Your task to perform on an android device: Open notification settings Image 0: 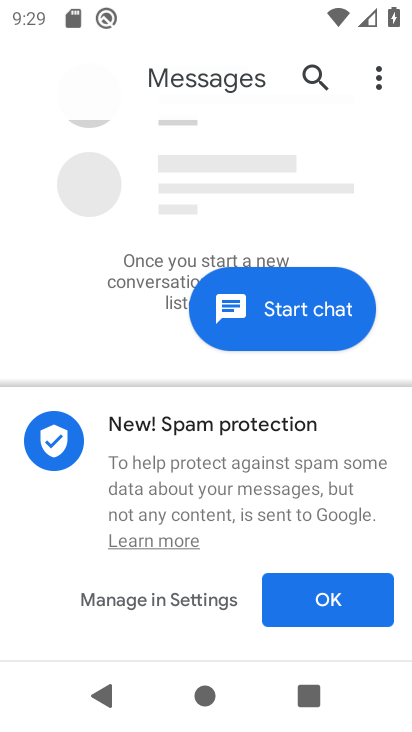
Step 0: press home button
Your task to perform on an android device: Open notification settings Image 1: 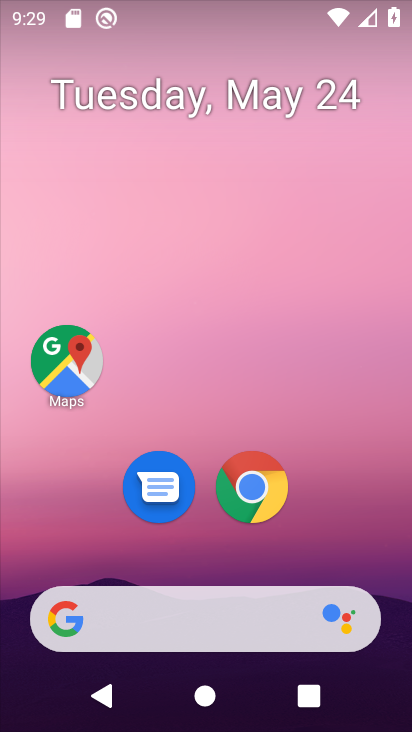
Step 1: drag from (169, 610) to (338, 68)
Your task to perform on an android device: Open notification settings Image 2: 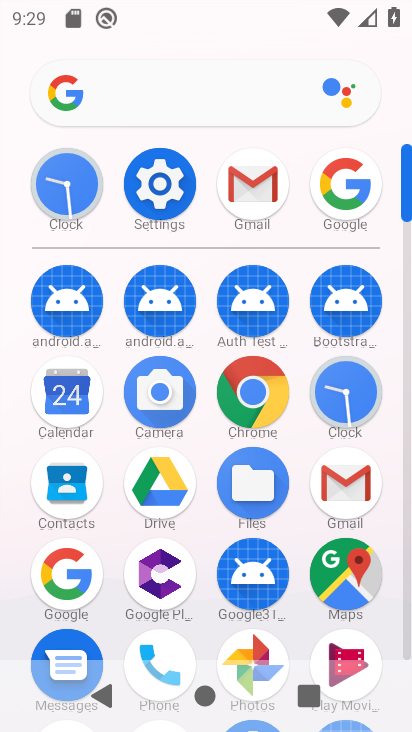
Step 2: click (159, 165)
Your task to perform on an android device: Open notification settings Image 3: 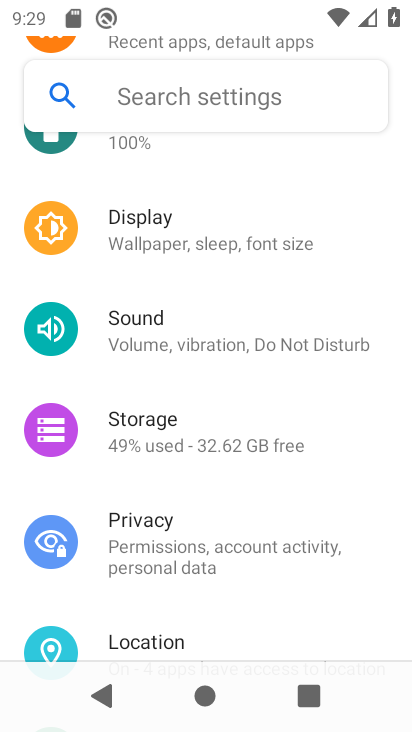
Step 3: drag from (339, 166) to (240, 635)
Your task to perform on an android device: Open notification settings Image 4: 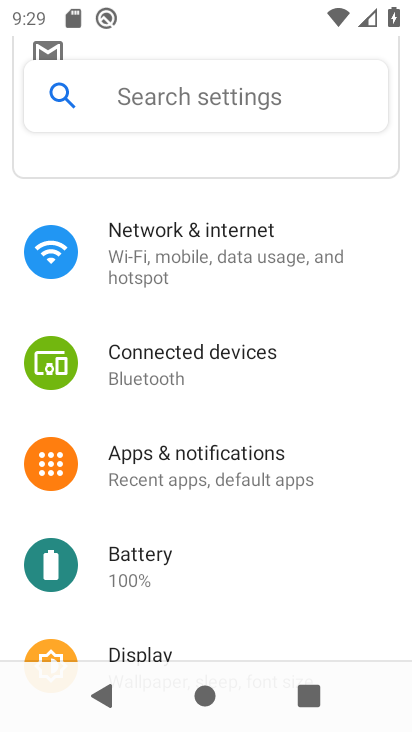
Step 4: click (239, 457)
Your task to perform on an android device: Open notification settings Image 5: 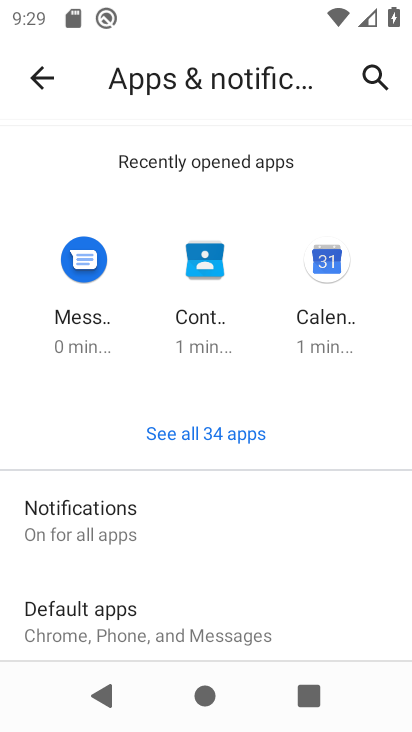
Step 5: click (104, 518)
Your task to perform on an android device: Open notification settings Image 6: 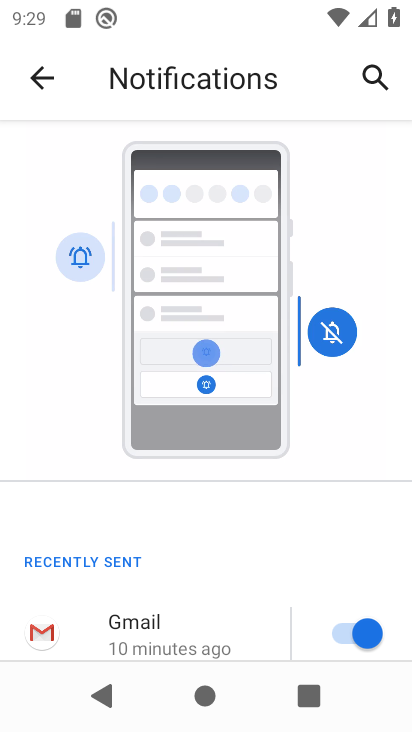
Step 6: task complete